Your task to perform on an android device: find which apps use the phone's location Image 0: 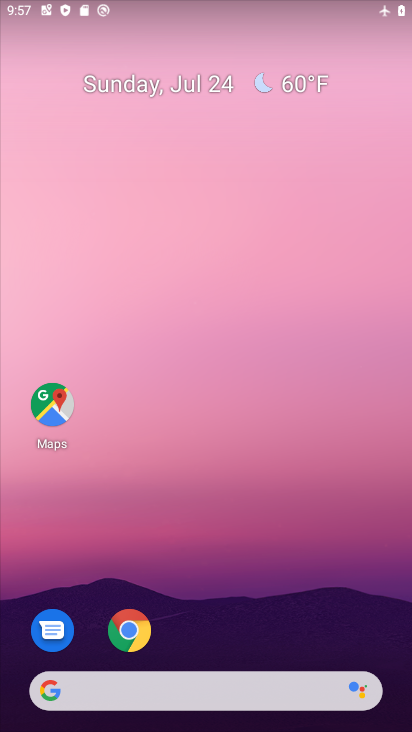
Step 0: drag from (218, 632) to (261, 5)
Your task to perform on an android device: find which apps use the phone's location Image 1: 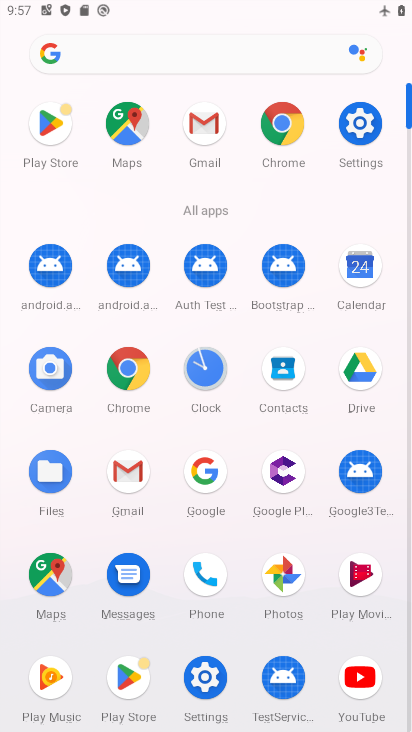
Step 1: click (202, 685)
Your task to perform on an android device: find which apps use the phone's location Image 2: 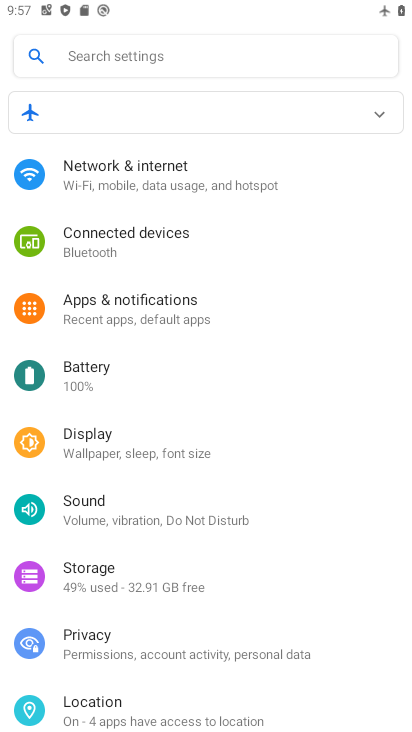
Step 2: click (98, 709)
Your task to perform on an android device: find which apps use the phone's location Image 3: 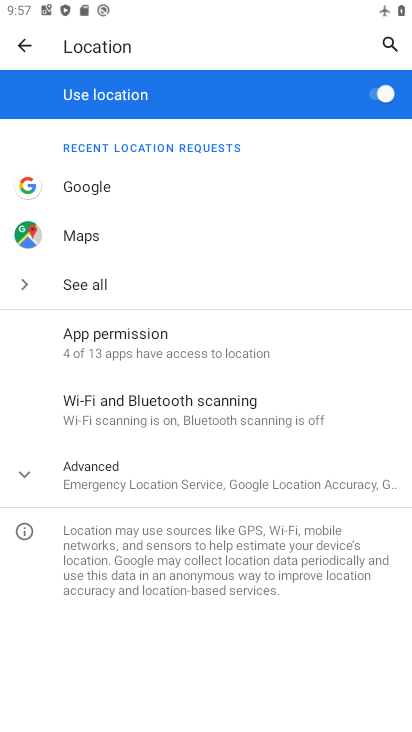
Step 3: click (118, 341)
Your task to perform on an android device: find which apps use the phone's location Image 4: 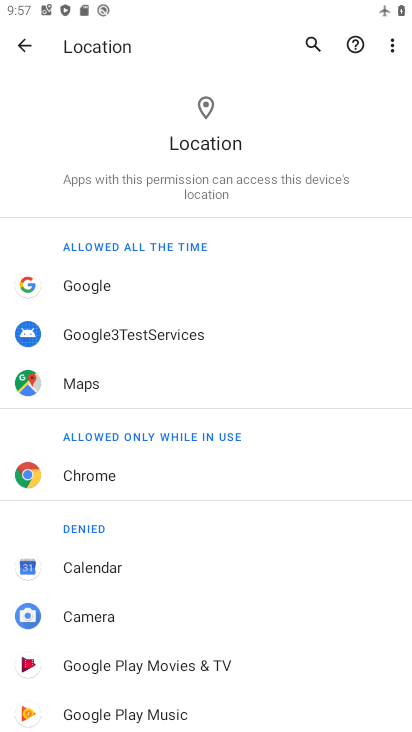
Step 4: task complete